Your task to perform on an android device: Open settings Image 0: 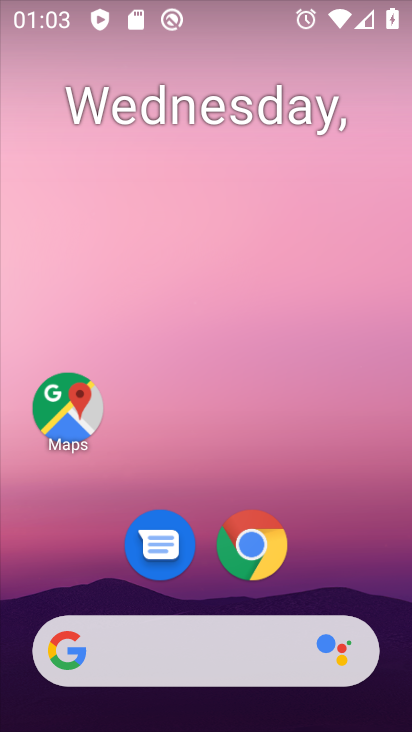
Step 0: drag from (350, 535) to (359, 105)
Your task to perform on an android device: Open settings Image 1: 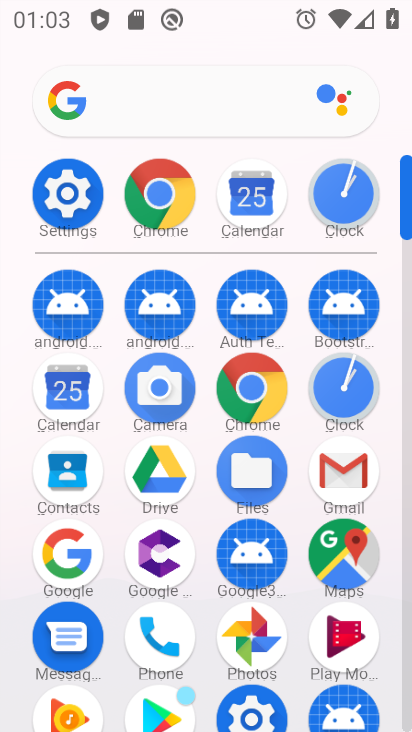
Step 1: click (71, 192)
Your task to perform on an android device: Open settings Image 2: 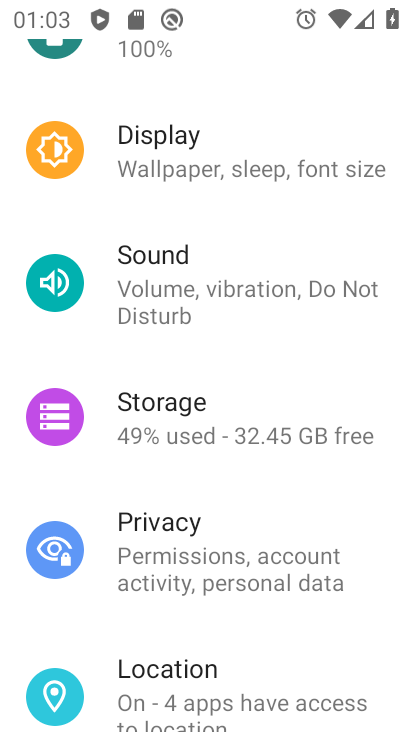
Step 2: task complete